Your task to perform on an android device: Open battery settings Image 0: 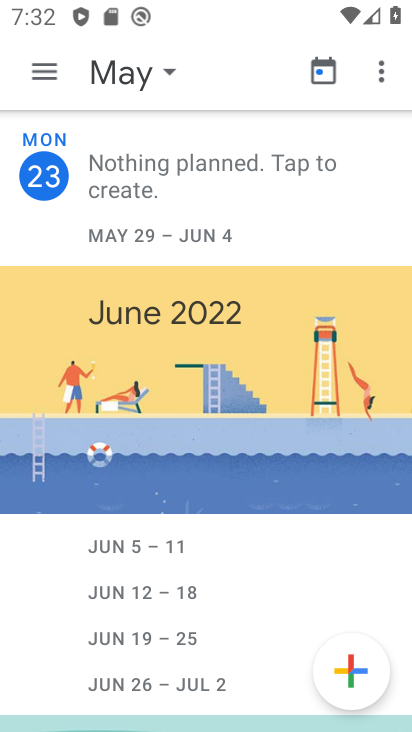
Step 0: press home button
Your task to perform on an android device: Open battery settings Image 1: 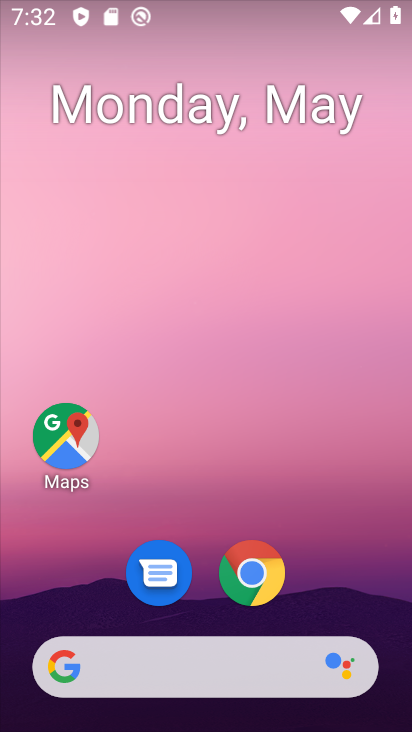
Step 1: click (354, 570)
Your task to perform on an android device: Open battery settings Image 2: 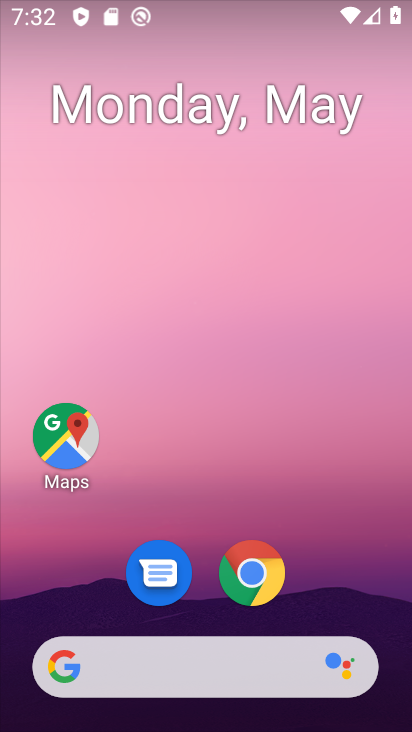
Step 2: drag from (354, 570) to (245, 178)
Your task to perform on an android device: Open battery settings Image 3: 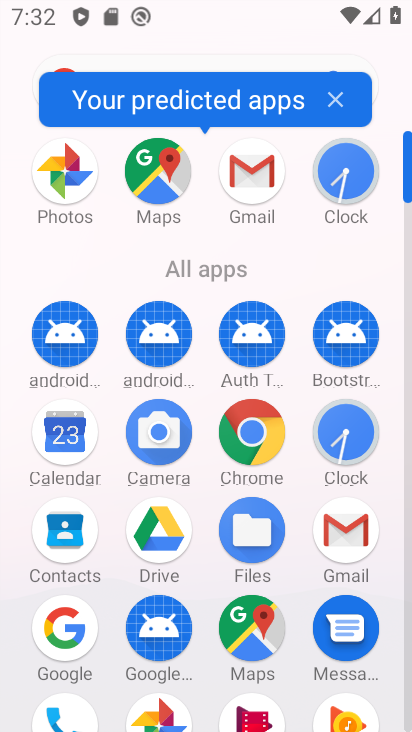
Step 3: click (410, 564)
Your task to perform on an android device: Open battery settings Image 4: 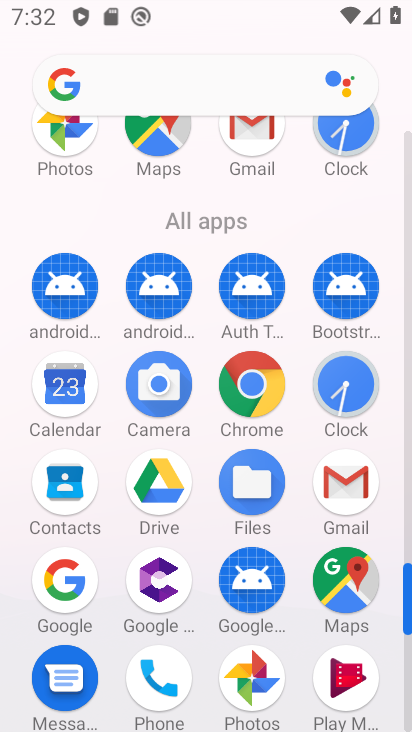
Step 4: click (409, 693)
Your task to perform on an android device: Open battery settings Image 5: 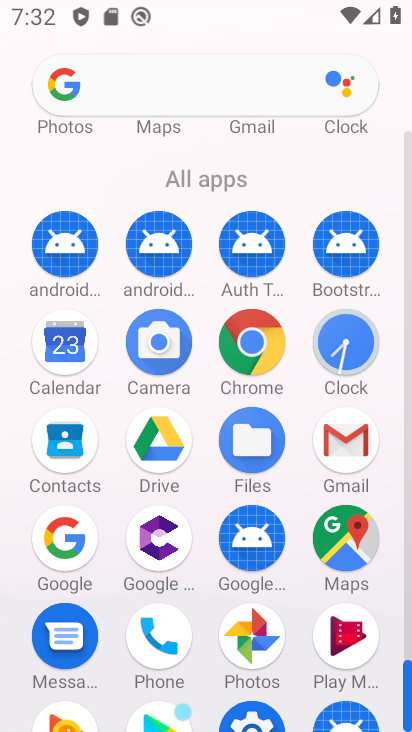
Step 5: click (256, 716)
Your task to perform on an android device: Open battery settings Image 6: 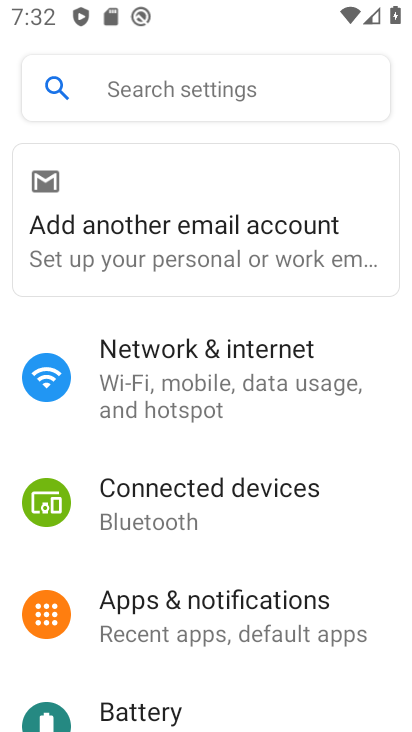
Step 6: click (256, 716)
Your task to perform on an android device: Open battery settings Image 7: 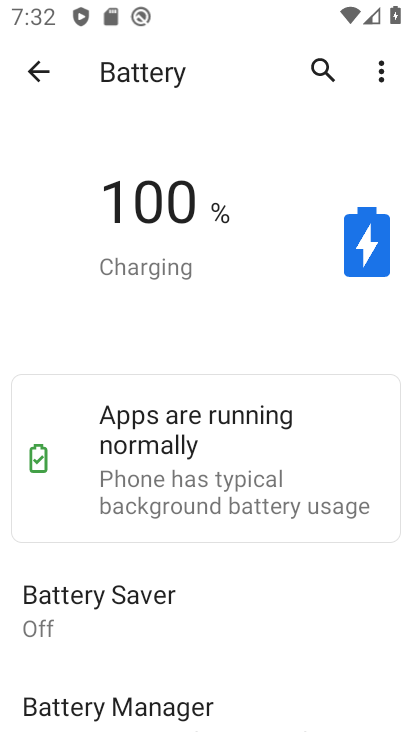
Step 7: task complete